Your task to perform on an android device: Is it going to rain this weekend? Image 0: 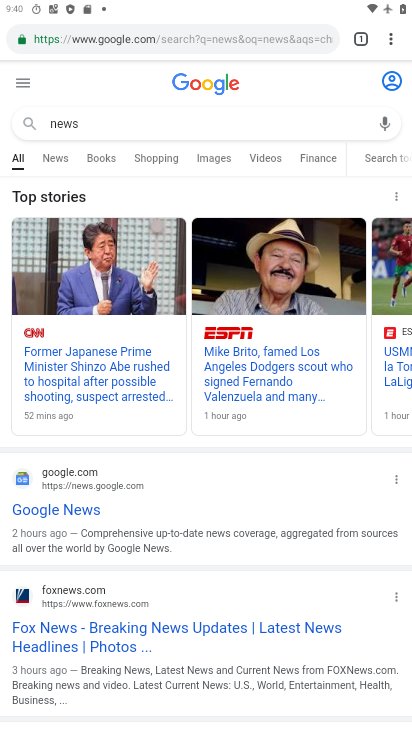
Step 0: click (183, 127)
Your task to perform on an android device: Is it going to rain this weekend? Image 1: 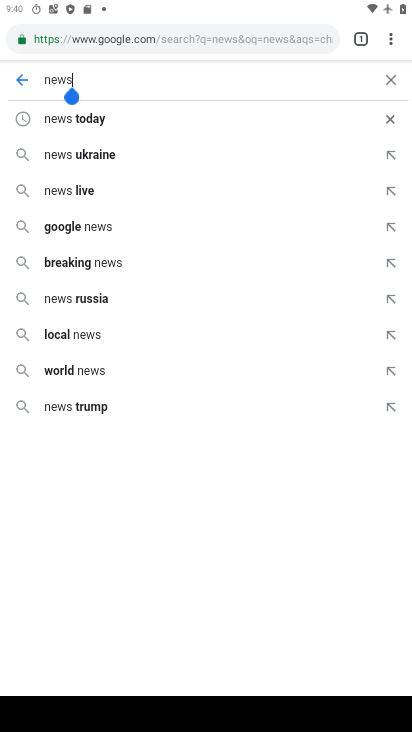
Step 1: click (391, 79)
Your task to perform on an android device: Is it going to rain this weekend? Image 2: 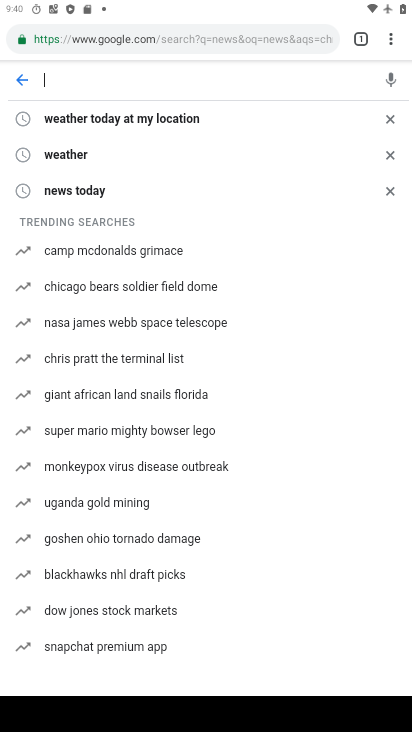
Step 2: click (73, 155)
Your task to perform on an android device: Is it going to rain this weekend? Image 3: 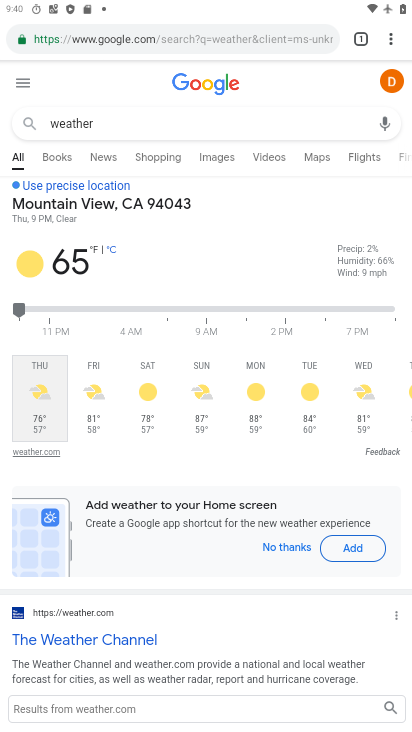
Step 3: click (149, 389)
Your task to perform on an android device: Is it going to rain this weekend? Image 4: 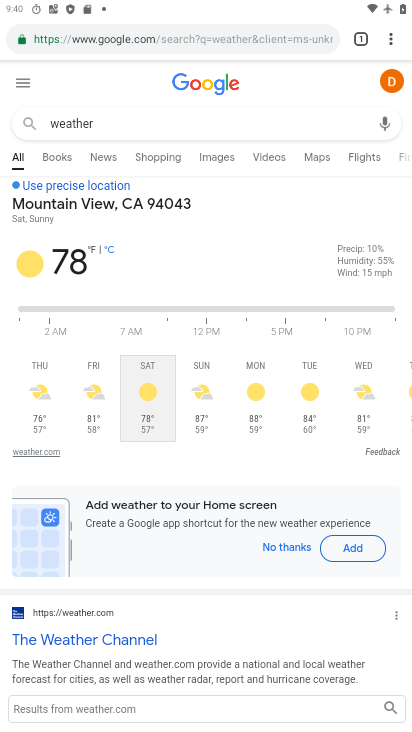
Step 4: task complete